Your task to perform on an android device: turn on priority inbox in the gmail app Image 0: 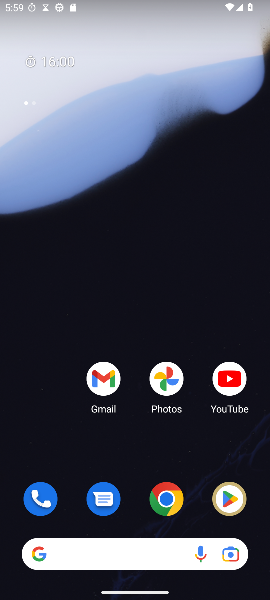
Step 0: drag from (111, 548) to (106, 96)
Your task to perform on an android device: turn on priority inbox in the gmail app Image 1: 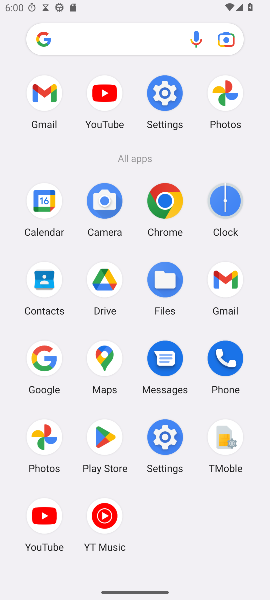
Step 1: click (48, 111)
Your task to perform on an android device: turn on priority inbox in the gmail app Image 2: 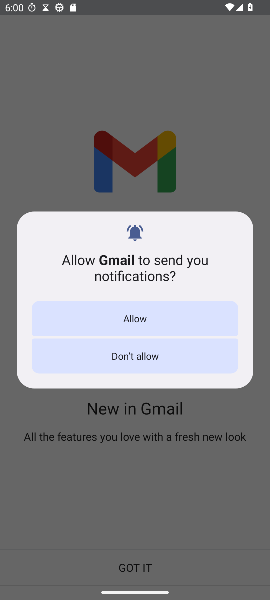
Step 2: click (166, 325)
Your task to perform on an android device: turn on priority inbox in the gmail app Image 3: 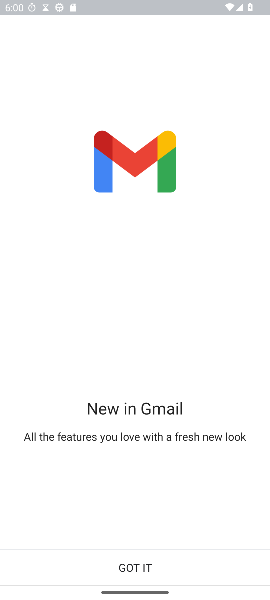
Step 3: click (128, 566)
Your task to perform on an android device: turn on priority inbox in the gmail app Image 4: 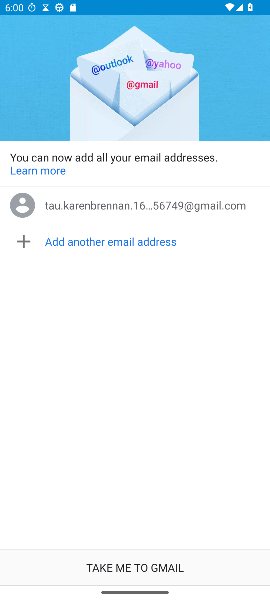
Step 4: click (128, 565)
Your task to perform on an android device: turn on priority inbox in the gmail app Image 5: 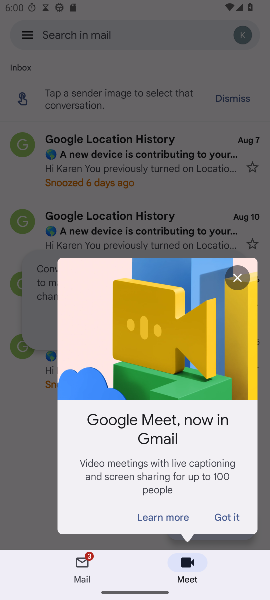
Step 5: click (243, 274)
Your task to perform on an android device: turn on priority inbox in the gmail app Image 6: 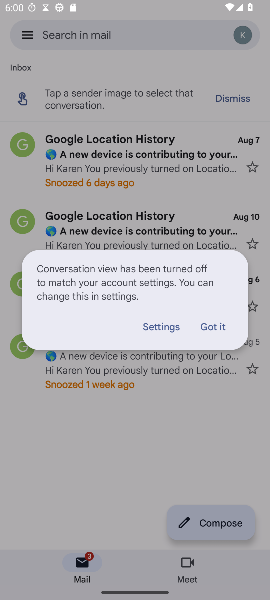
Step 6: click (218, 326)
Your task to perform on an android device: turn on priority inbox in the gmail app Image 7: 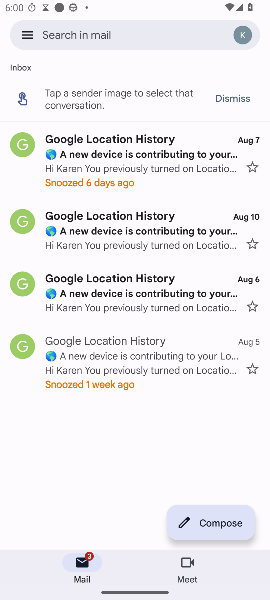
Step 7: click (29, 41)
Your task to perform on an android device: turn on priority inbox in the gmail app Image 8: 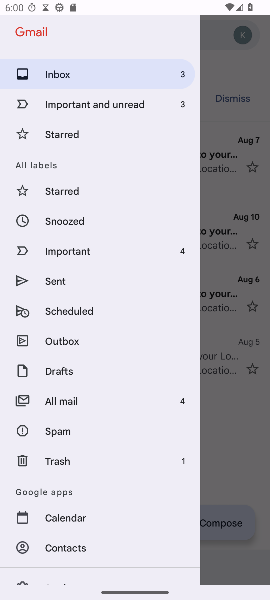
Step 8: drag from (88, 506) to (109, 147)
Your task to perform on an android device: turn on priority inbox in the gmail app Image 9: 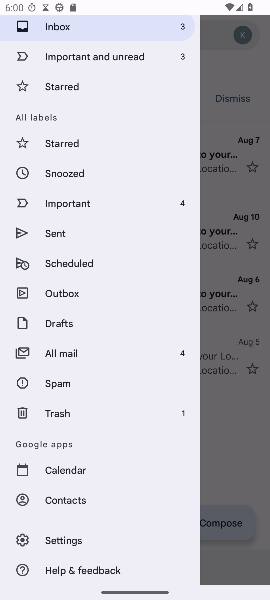
Step 9: click (78, 536)
Your task to perform on an android device: turn on priority inbox in the gmail app Image 10: 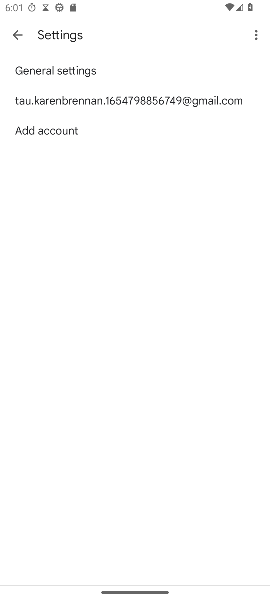
Step 10: click (30, 102)
Your task to perform on an android device: turn on priority inbox in the gmail app Image 11: 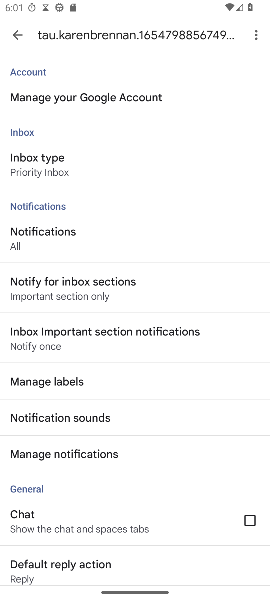
Step 11: click (39, 175)
Your task to perform on an android device: turn on priority inbox in the gmail app Image 12: 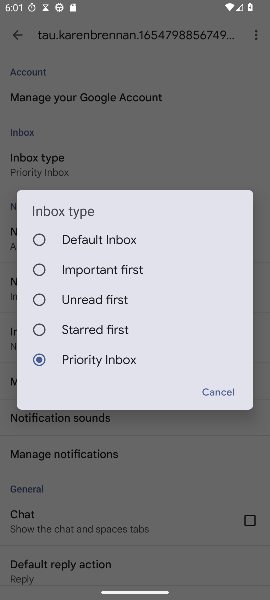
Step 12: task complete